Your task to perform on an android device: Open Google Image 0: 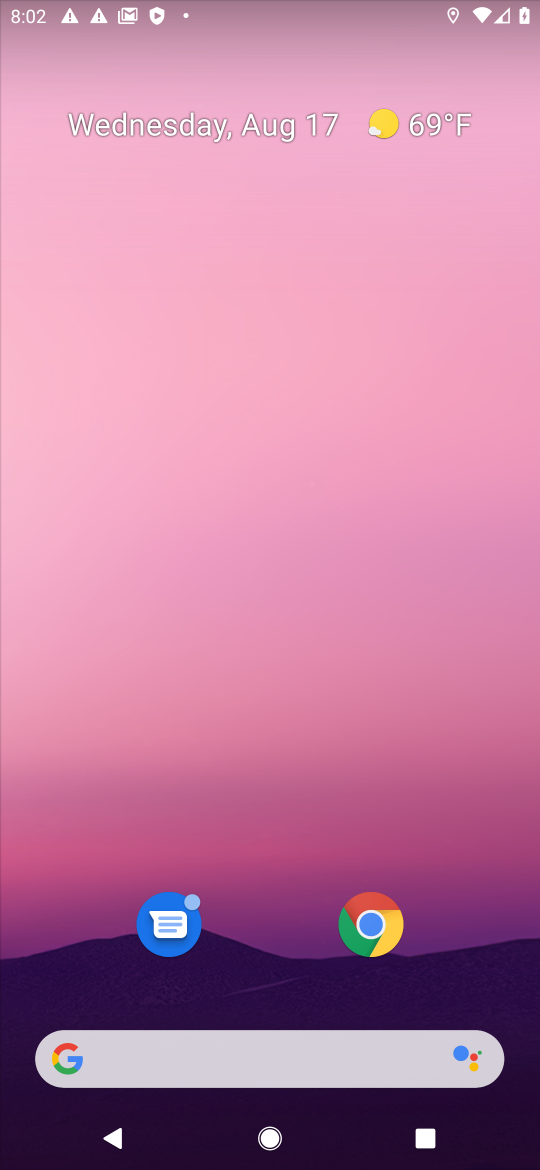
Step 0: drag from (286, 931) to (313, 73)
Your task to perform on an android device: Open Google Image 1: 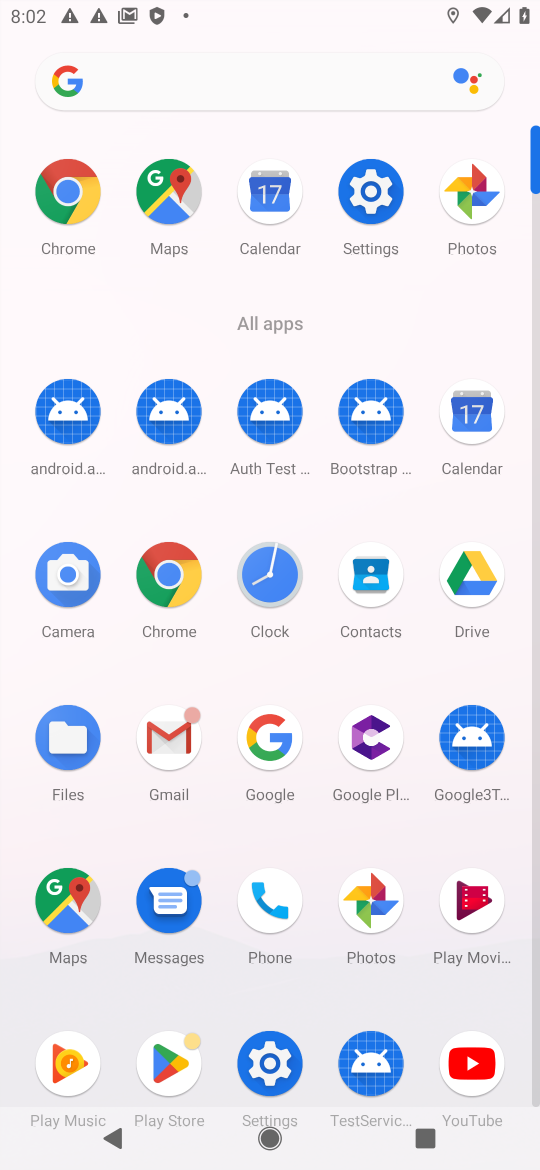
Step 1: click (277, 741)
Your task to perform on an android device: Open Google Image 2: 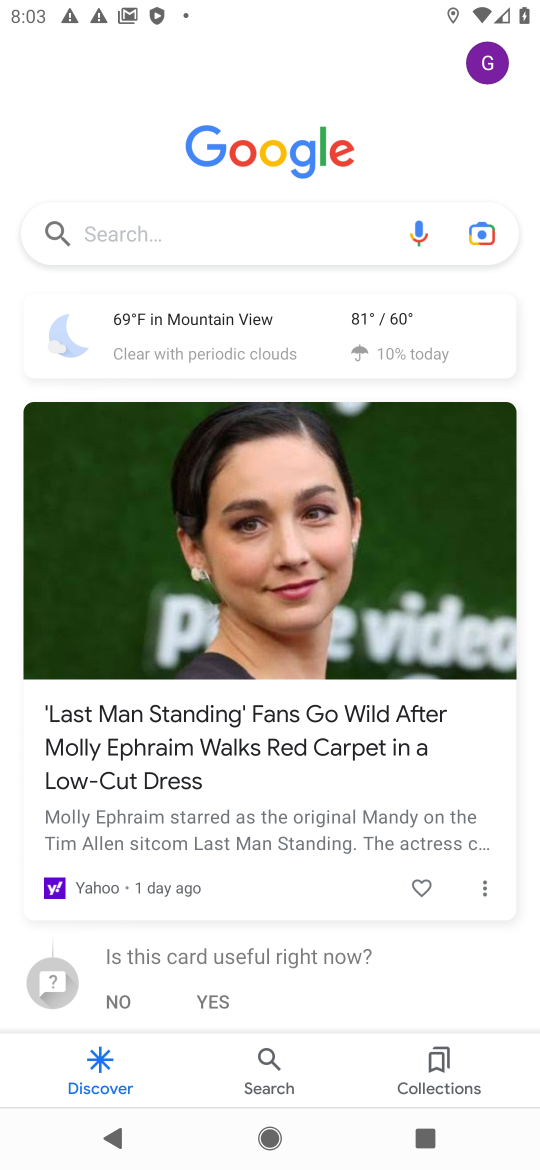
Step 2: press home button
Your task to perform on an android device: Open Google Image 3: 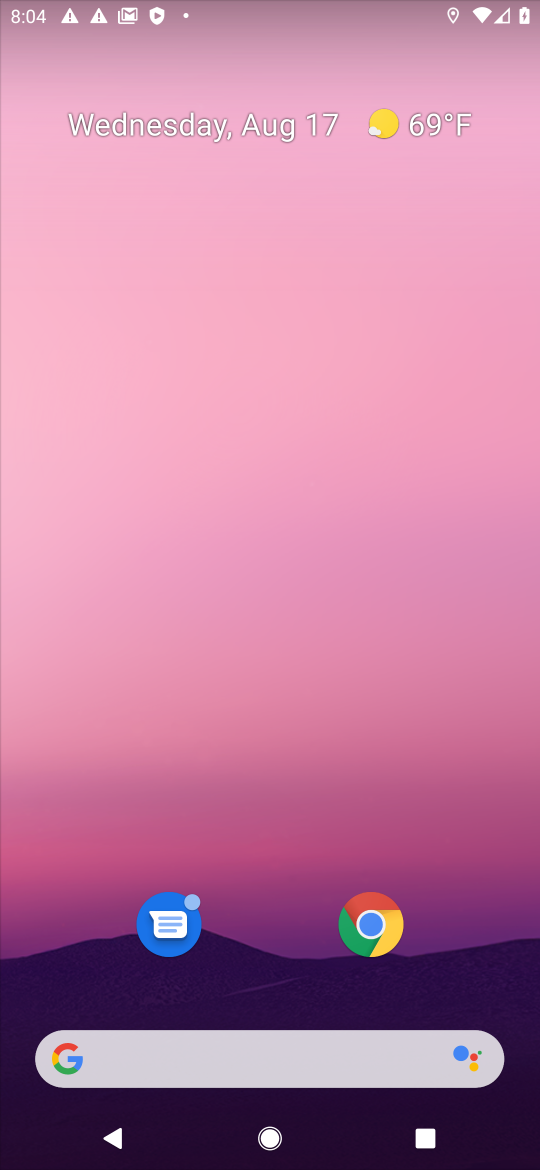
Step 3: press home button
Your task to perform on an android device: Open Google Image 4: 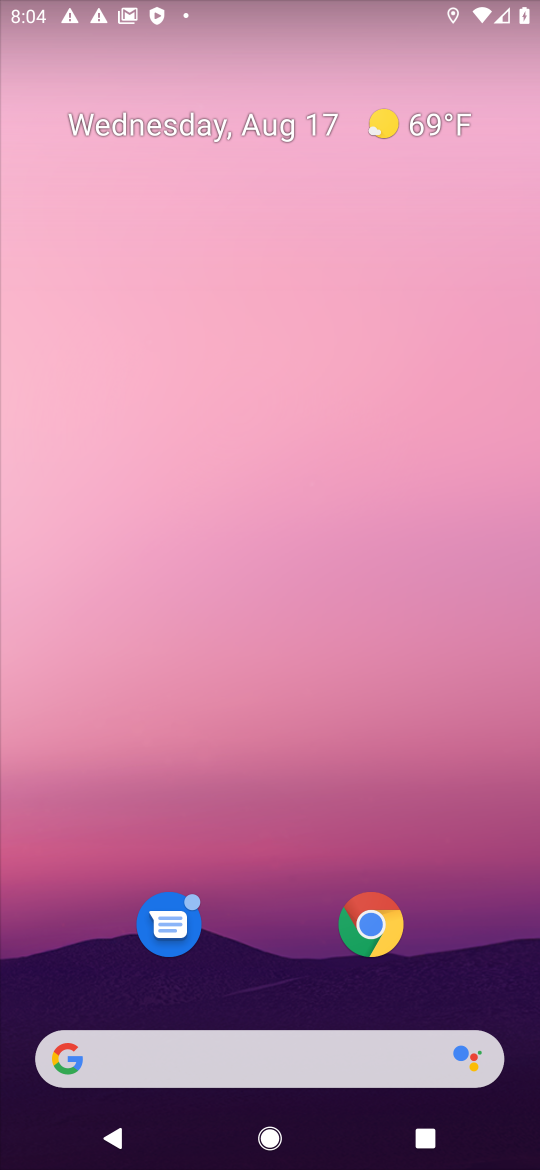
Step 4: drag from (249, 947) to (337, 26)
Your task to perform on an android device: Open Google Image 5: 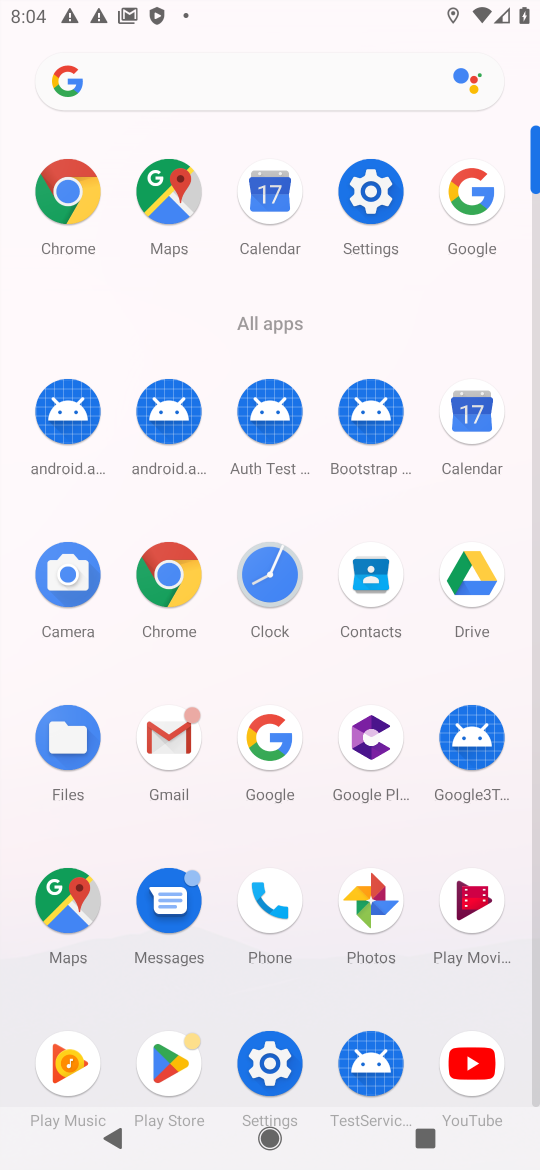
Step 5: click (270, 723)
Your task to perform on an android device: Open Google Image 6: 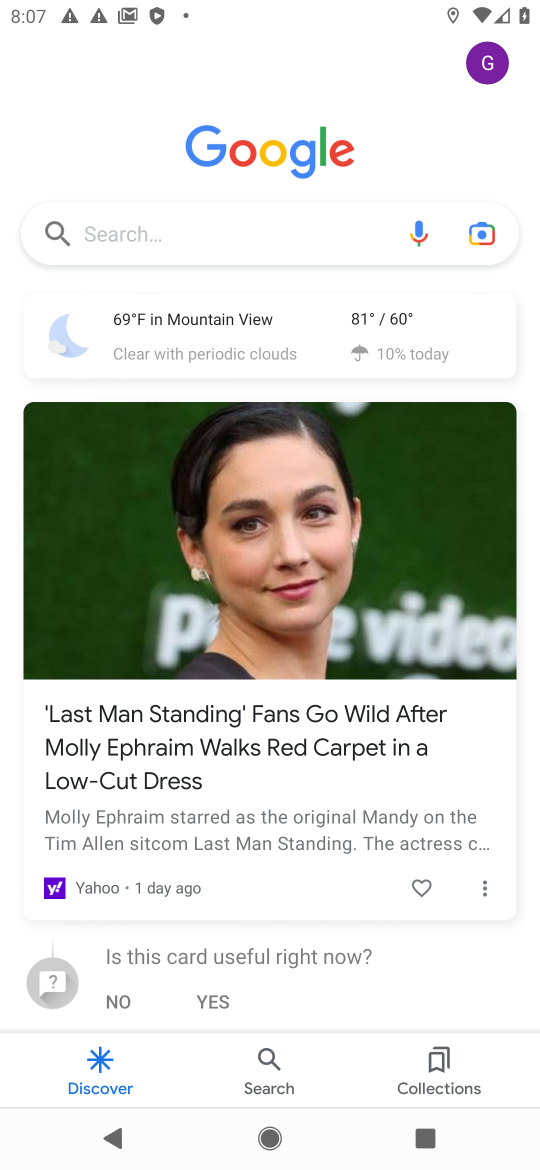
Step 6: task complete